Your task to perform on an android device: Open my contact list Image 0: 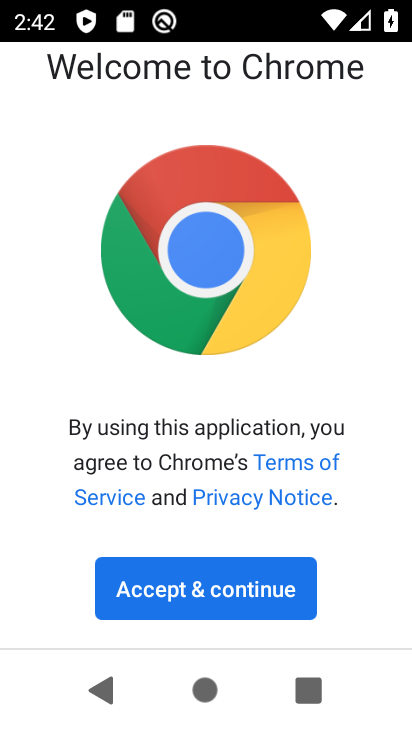
Step 0: drag from (358, 660) to (159, 11)
Your task to perform on an android device: Open my contact list Image 1: 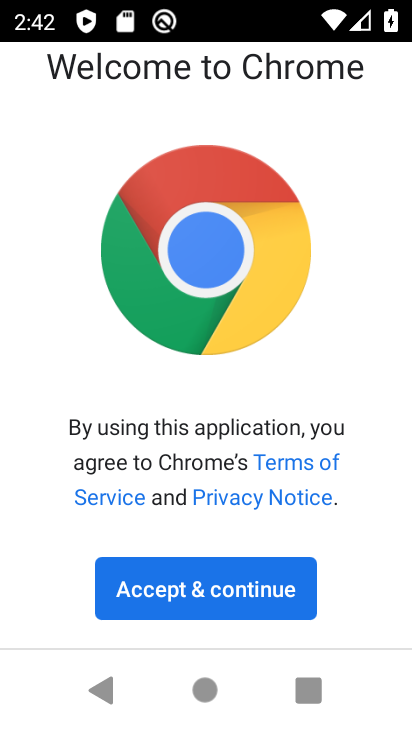
Step 1: press back button
Your task to perform on an android device: Open my contact list Image 2: 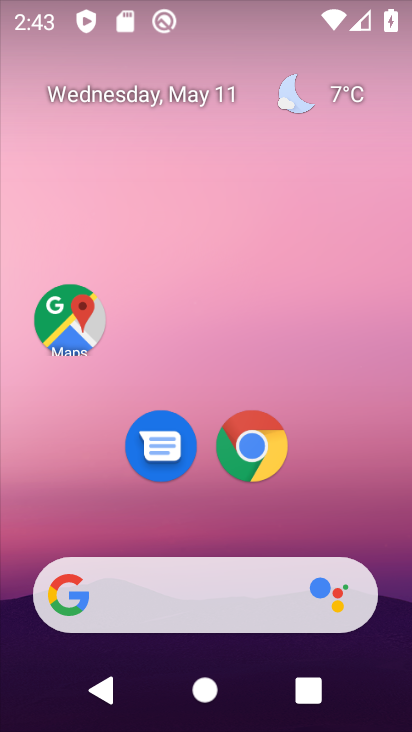
Step 2: drag from (384, 647) to (212, 0)
Your task to perform on an android device: Open my contact list Image 3: 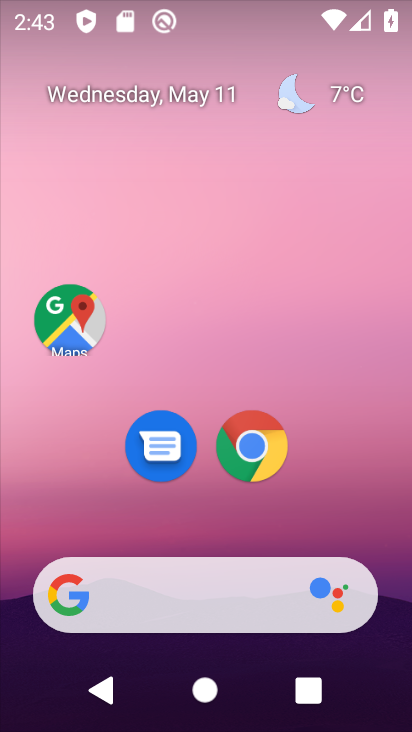
Step 3: drag from (307, 370) to (103, 1)
Your task to perform on an android device: Open my contact list Image 4: 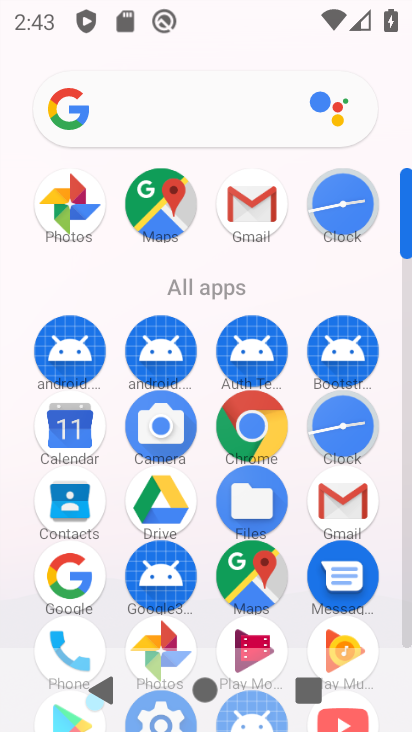
Step 4: click (195, 188)
Your task to perform on an android device: Open my contact list Image 5: 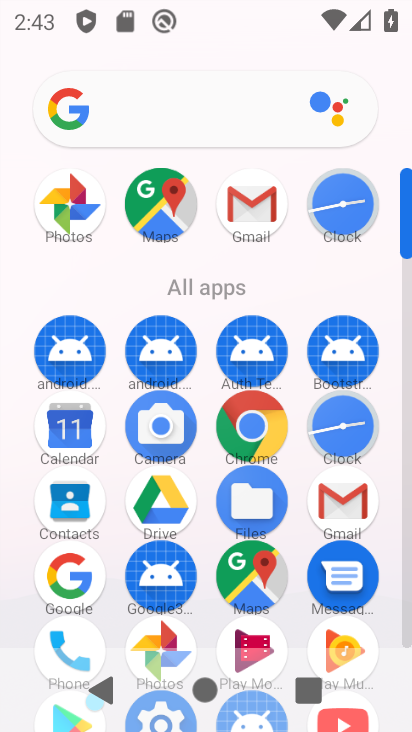
Step 5: click (296, 330)
Your task to perform on an android device: Open my contact list Image 6: 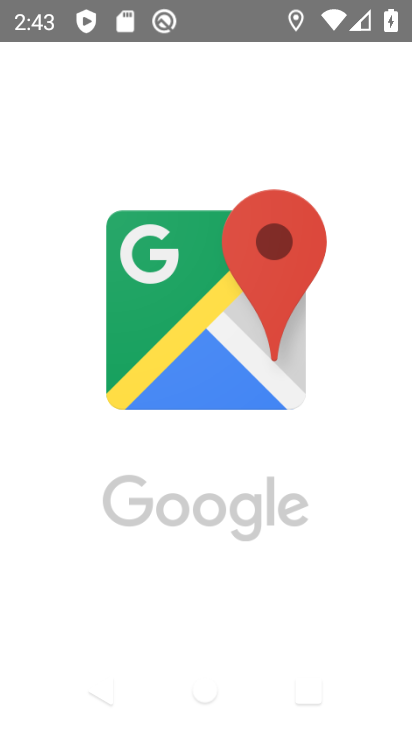
Step 6: press home button
Your task to perform on an android device: Open my contact list Image 7: 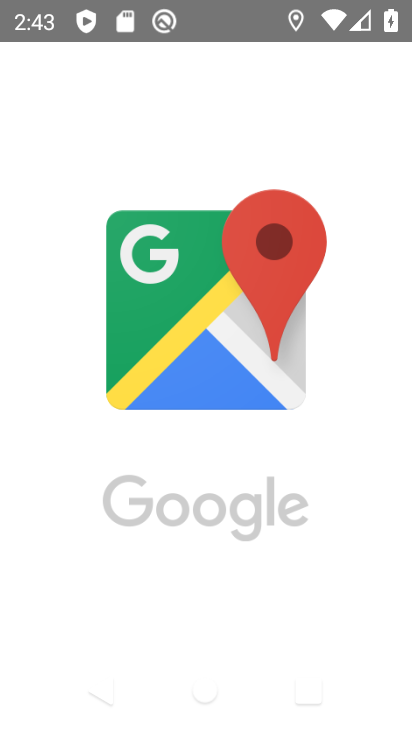
Step 7: press home button
Your task to perform on an android device: Open my contact list Image 8: 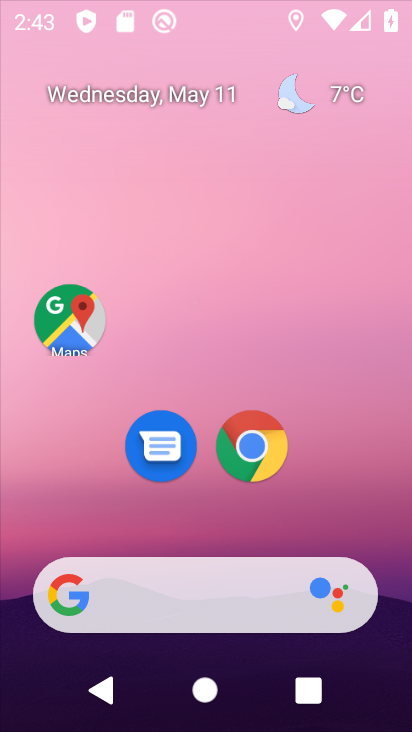
Step 8: press home button
Your task to perform on an android device: Open my contact list Image 9: 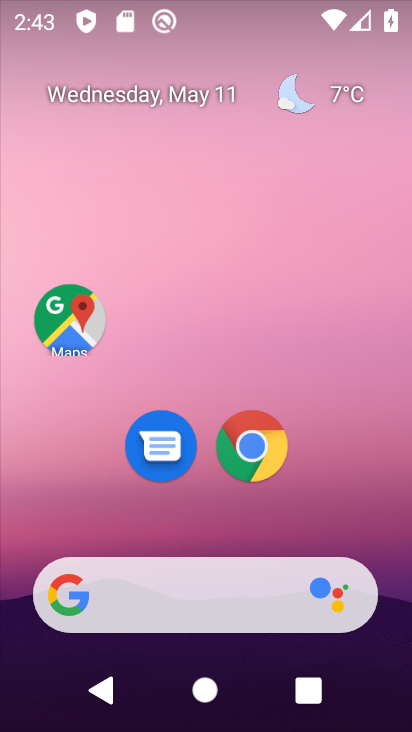
Step 9: drag from (314, 474) to (179, 14)
Your task to perform on an android device: Open my contact list Image 10: 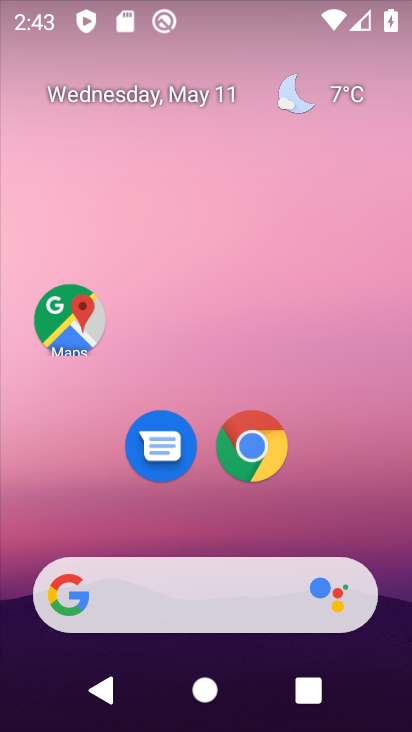
Step 10: drag from (273, 405) to (88, 13)
Your task to perform on an android device: Open my contact list Image 11: 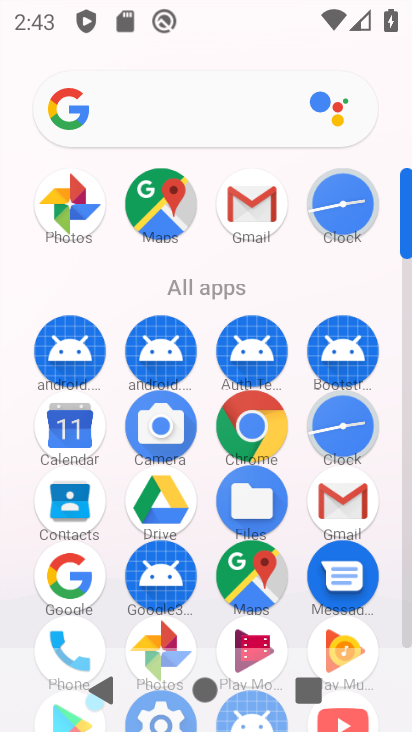
Step 11: drag from (283, 462) to (146, 170)
Your task to perform on an android device: Open my contact list Image 12: 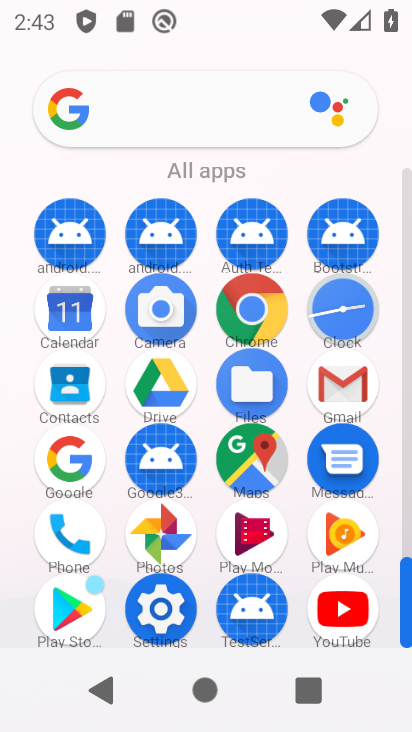
Step 12: click (73, 382)
Your task to perform on an android device: Open my contact list Image 13: 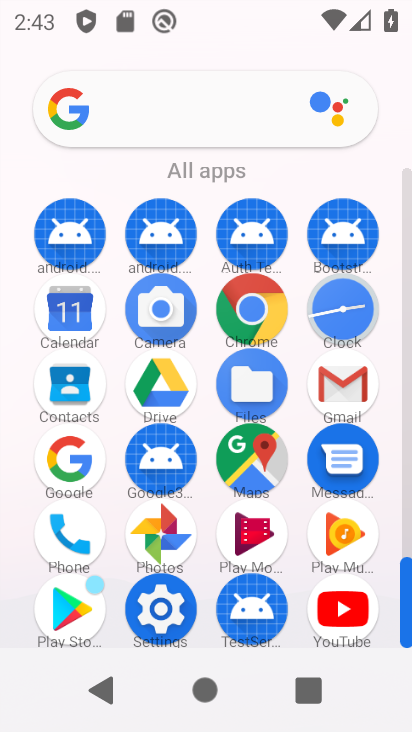
Step 13: click (73, 382)
Your task to perform on an android device: Open my contact list Image 14: 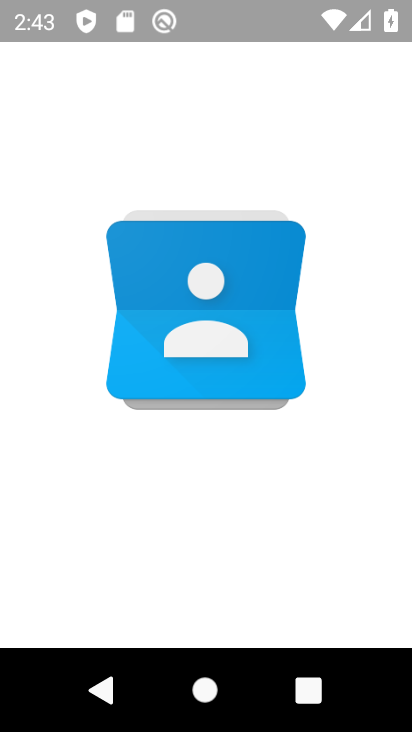
Step 14: click (67, 372)
Your task to perform on an android device: Open my contact list Image 15: 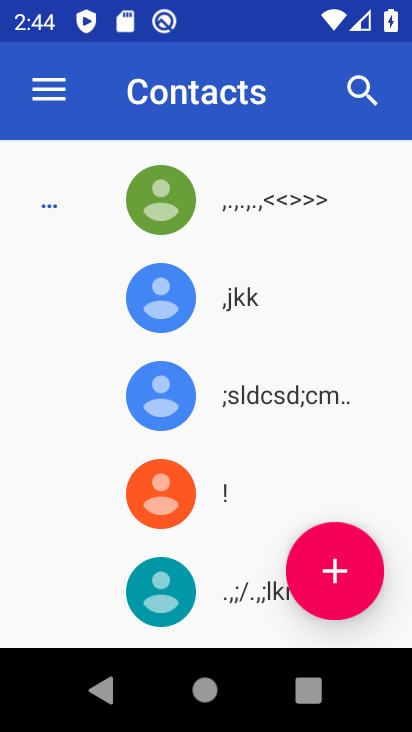
Step 15: press back button
Your task to perform on an android device: Open my contact list Image 16: 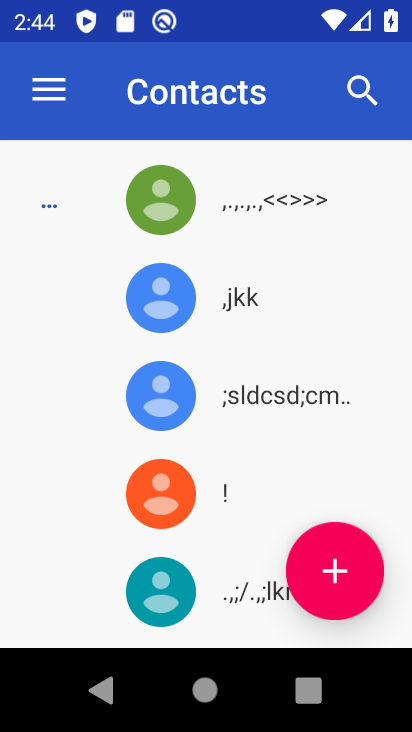
Step 16: press back button
Your task to perform on an android device: Open my contact list Image 17: 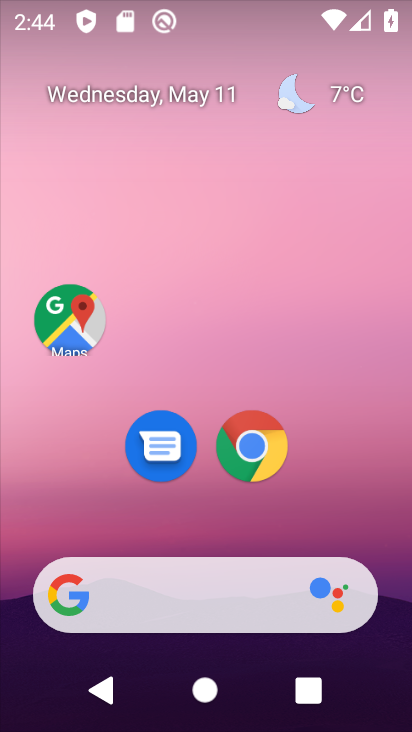
Step 17: drag from (371, 649) to (183, 13)
Your task to perform on an android device: Open my contact list Image 18: 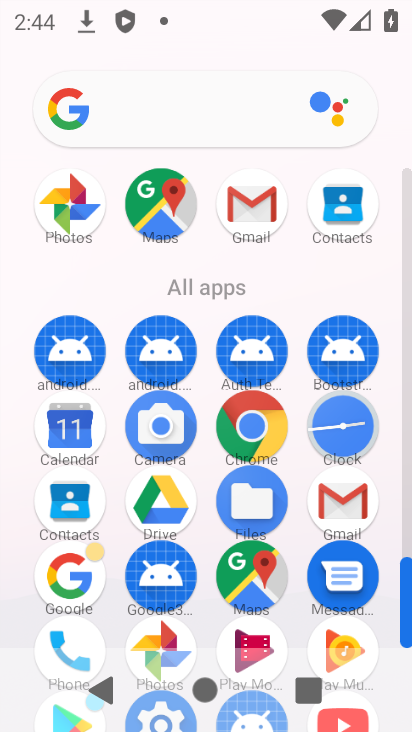
Step 18: click (332, 214)
Your task to perform on an android device: Open my contact list Image 19: 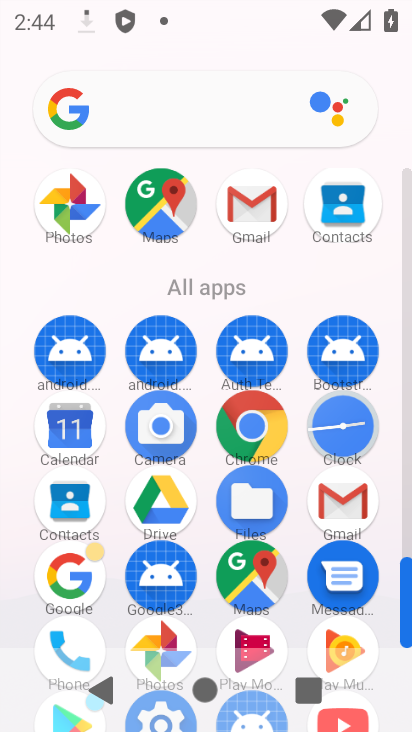
Step 19: click (333, 213)
Your task to perform on an android device: Open my contact list Image 20: 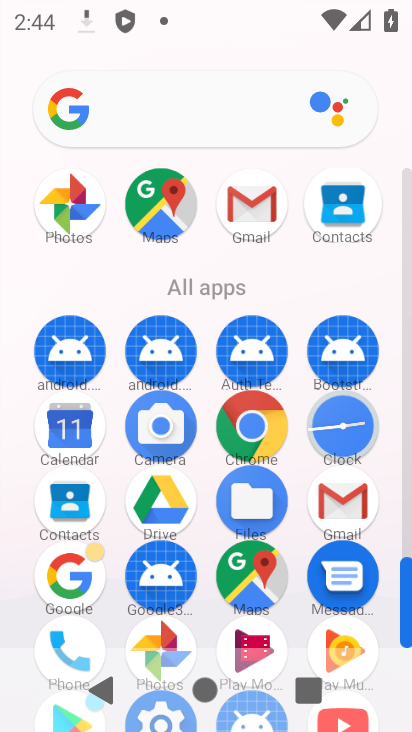
Step 20: click (333, 213)
Your task to perform on an android device: Open my contact list Image 21: 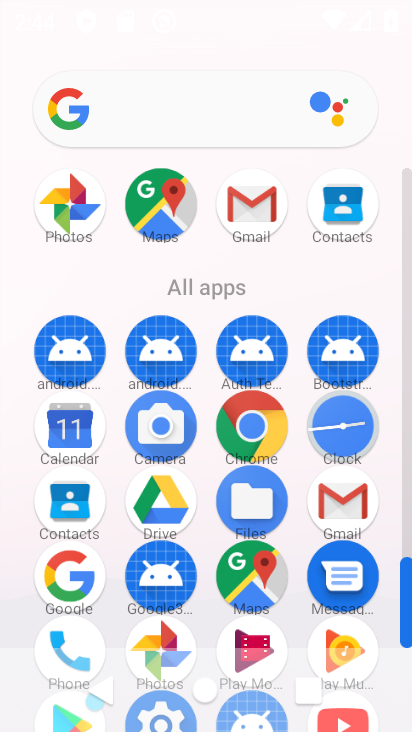
Step 21: click (341, 198)
Your task to perform on an android device: Open my contact list Image 22: 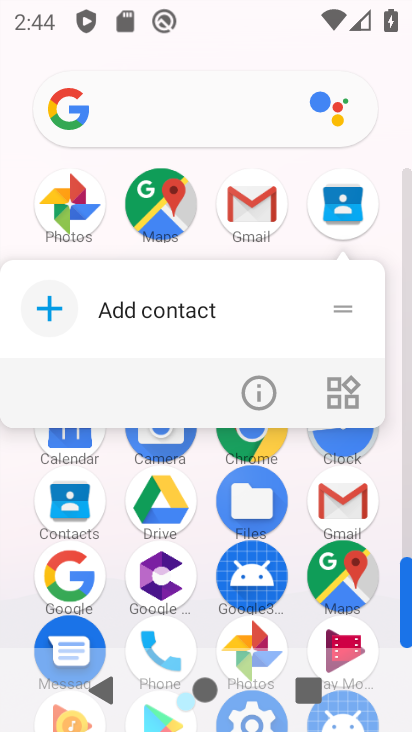
Step 22: click (338, 212)
Your task to perform on an android device: Open my contact list Image 23: 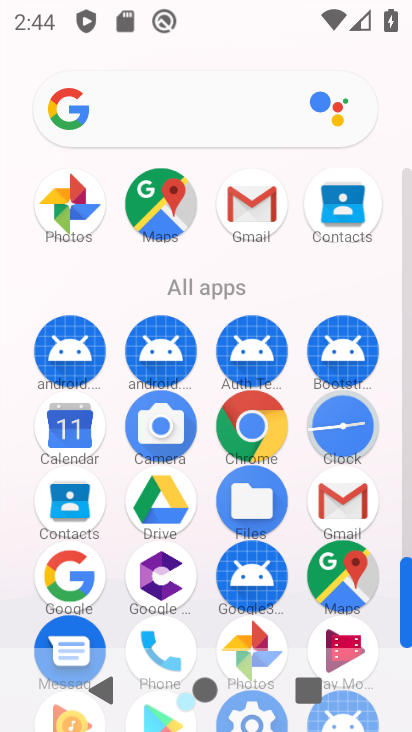
Step 23: click (338, 212)
Your task to perform on an android device: Open my contact list Image 24: 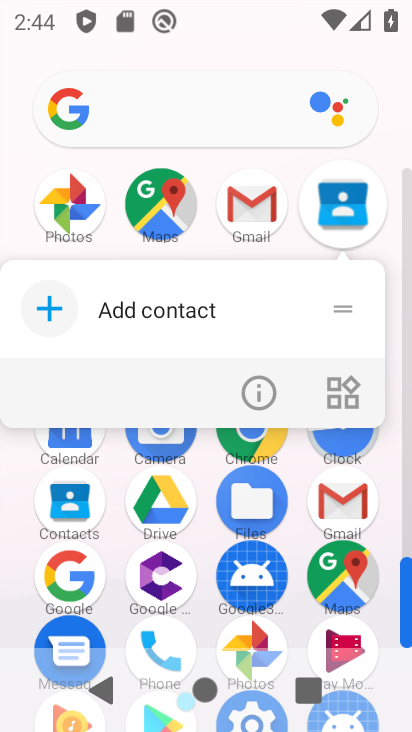
Step 24: click (338, 212)
Your task to perform on an android device: Open my contact list Image 25: 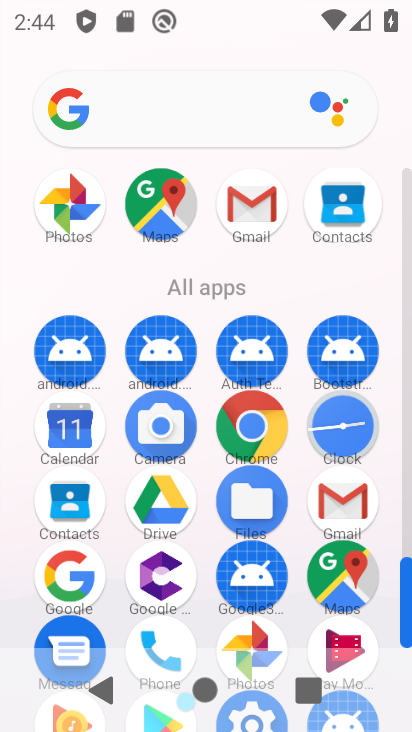
Step 25: click (338, 212)
Your task to perform on an android device: Open my contact list Image 26: 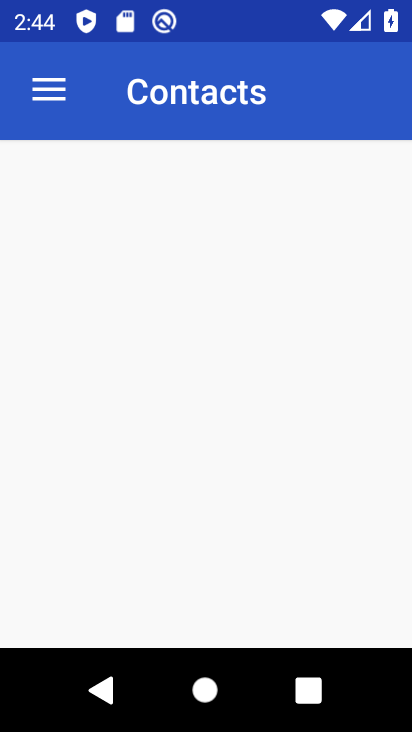
Step 26: click (338, 212)
Your task to perform on an android device: Open my contact list Image 27: 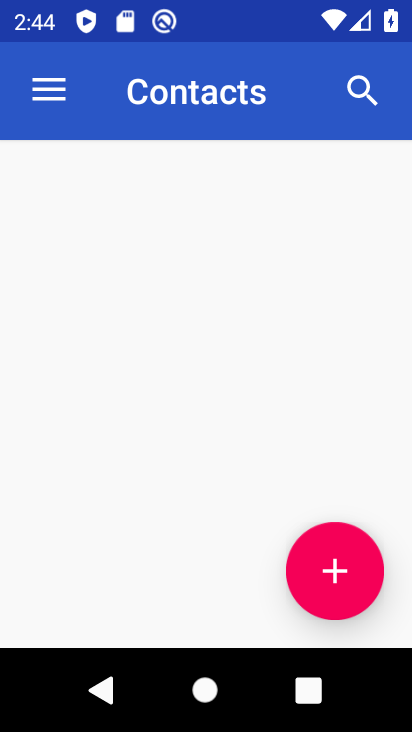
Step 27: click (338, 212)
Your task to perform on an android device: Open my contact list Image 28: 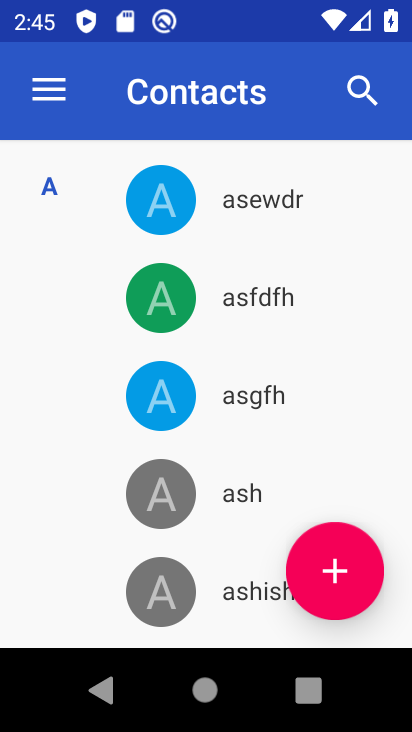
Step 28: task complete